Your task to perform on an android device: open the mobile data screen to see how much data has been used Image 0: 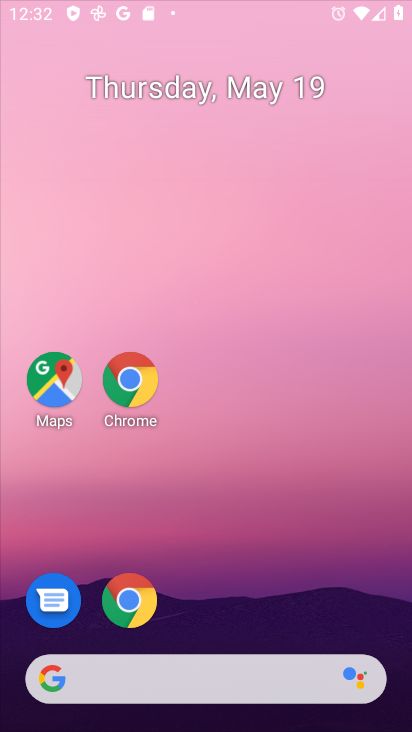
Step 0: drag from (349, 603) to (190, 174)
Your task to perform on an android device: open the mobile data screen to see how much data has been used Image 1: 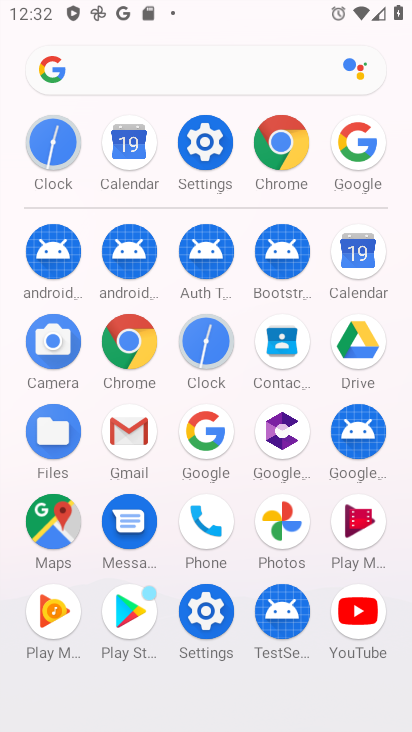
Step 1: click (196, 154)
Your task to perform on an android device: open the mobile data screen to see how much data has been used Image 2: 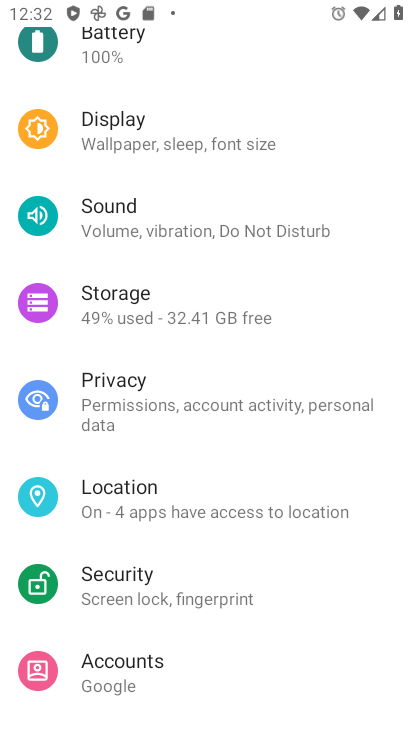
Step 2: drag from (139, 121) to (240, 472)
Your task to perform on an android device: open the mobile data screen to see how much data has been used Image 3: 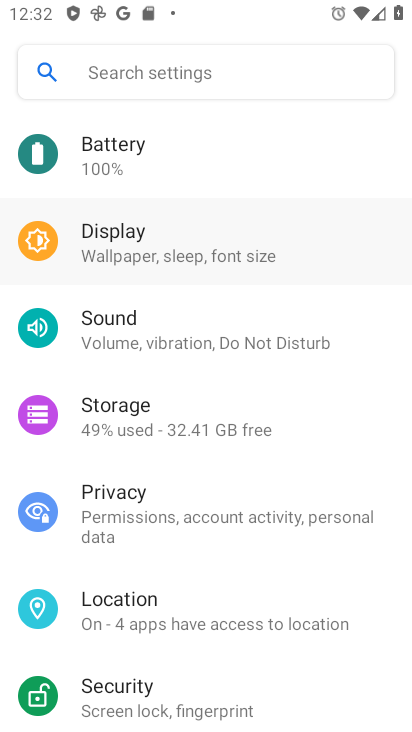
Step 3: drag from (188, 215) to (208, 436)
Your task to perform on an android device: open the mobile data screen to see how much data has been used Image 4: 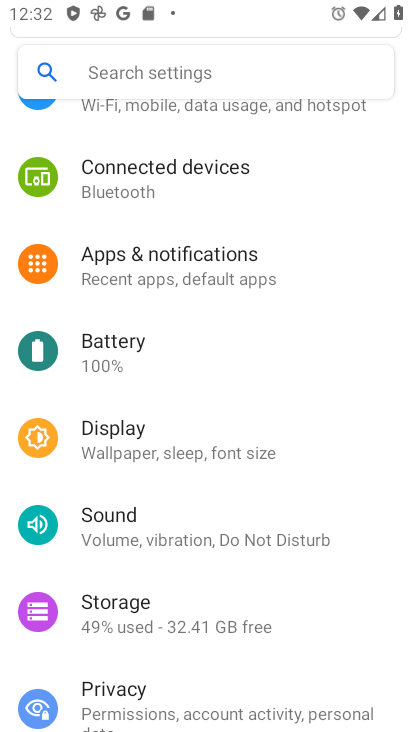
Step 4: drag from (145, 153) to (192, 429)
Your task to perform on an android device: open the mobile data screen to see how much data has been used Image 5: 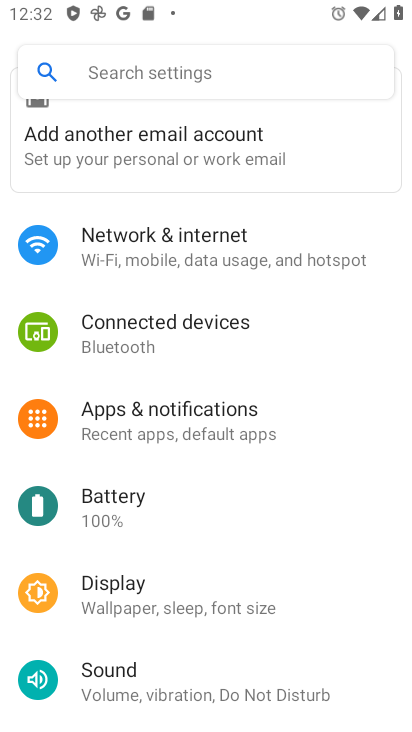
Step 5: click (151, 243)
Your task to perform on an android device: open the mobile data screen to see how much data has been used Image 6: 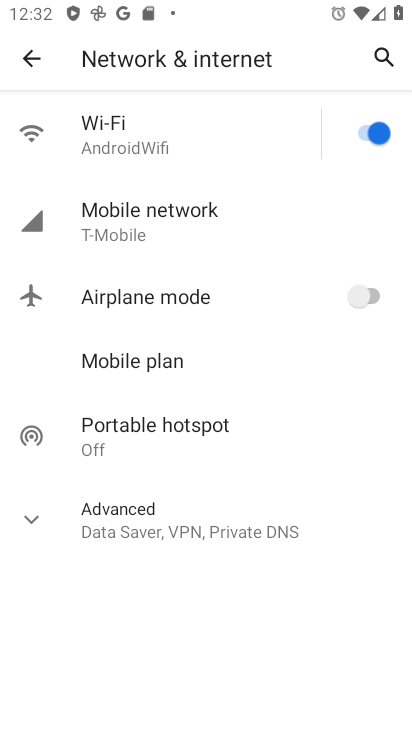
Step 6: click (116, 225)
Your task to perform on an android device: open the mobile data screen to see how much data has been used Image 7: 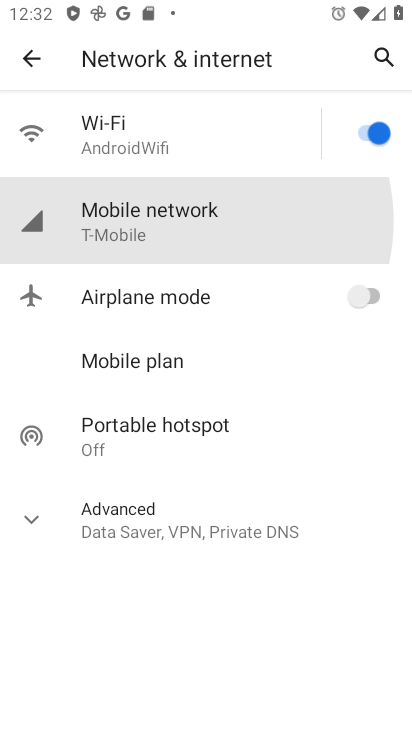
Step 7: click (116, 225)
Your task to perform on an android device: open the mobile data screen to see how much data has been used Image 8: 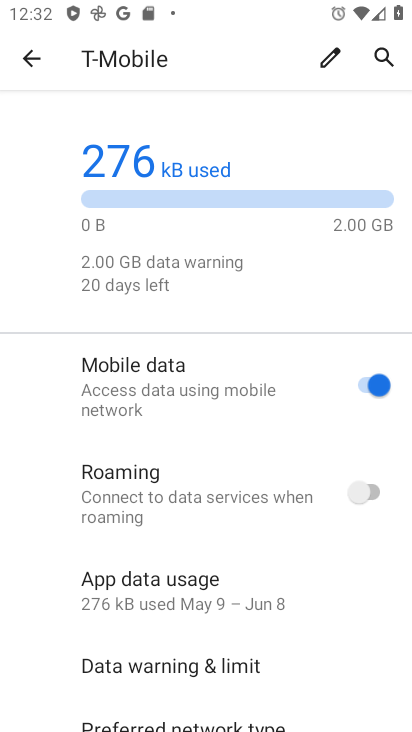
Step 8: click (32, 61)
Your task to perform on an android device: open the mobile data screen to see how much data has been used Image 9: 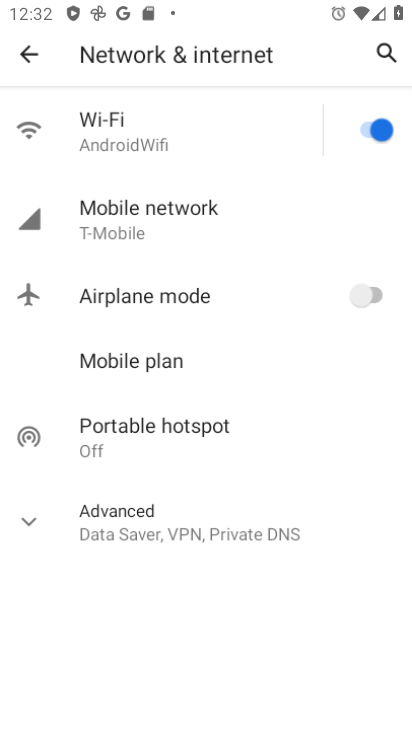
Step 9: click (32, 61)
Your task to perform on an android device: open the mobile data screen to see how much data has been used Image 10: 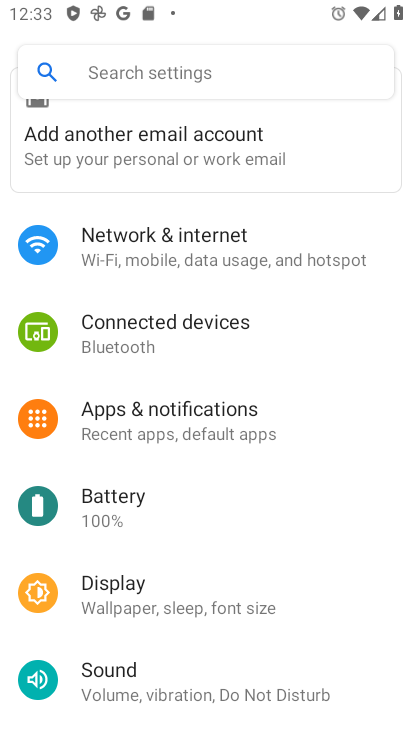
Step 10: drag from (128, 234) to (204, 501)
Your task to perform on an android device: open the mobile data screen to see how much data has been used Image 11: 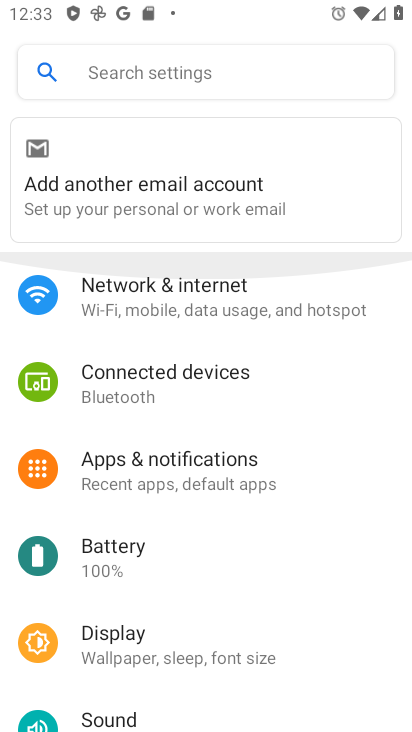
Step 11: drag from (129, 278) to (173, 526)
Your task to perform on an android device: open the mobile data screen to see how much data has been used Image 12: 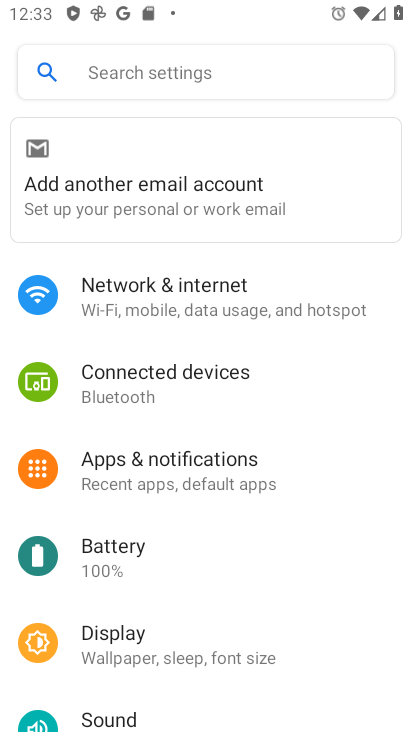
Step 12: click (156, 290)
Your task to perform on an android device: open the mobile data screen to see how much data has been used Image 13: 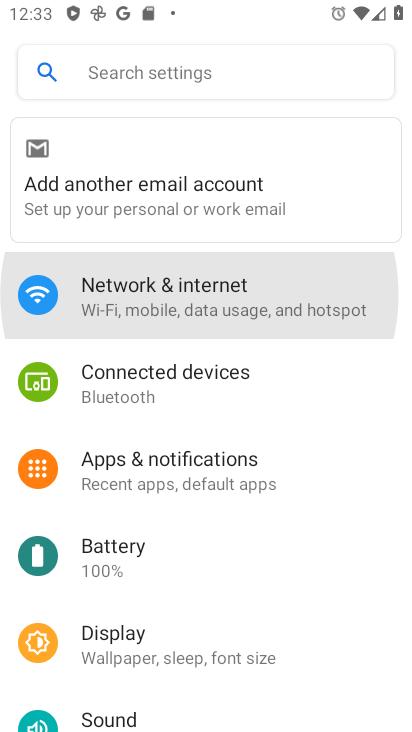
Step 13: click (156, 290)
Your task to perform on an android device: open the mobile data screen to see how much data has been used Image 14: 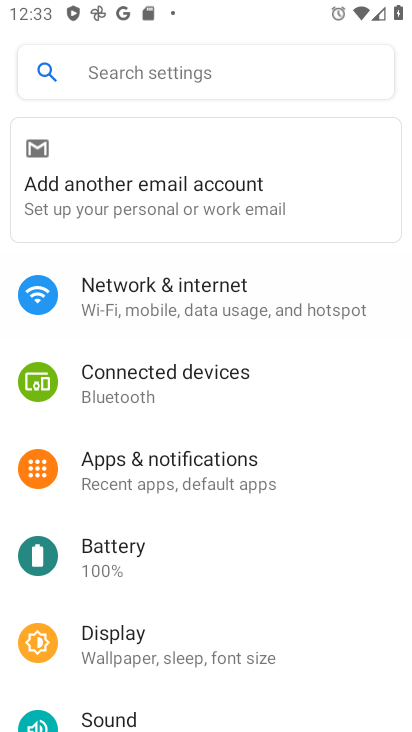
Step 14: click (156, 290)
Your task to perform on an android device: open the mobile data screen to see how much data has been used Image 15: 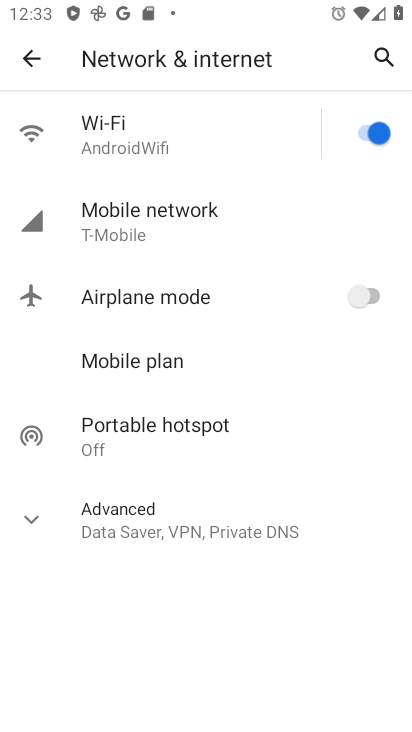
Step 15: click (357, 304)
Your task to perform on an android device: open the mobile data screen to see how much data has been used Image 16: 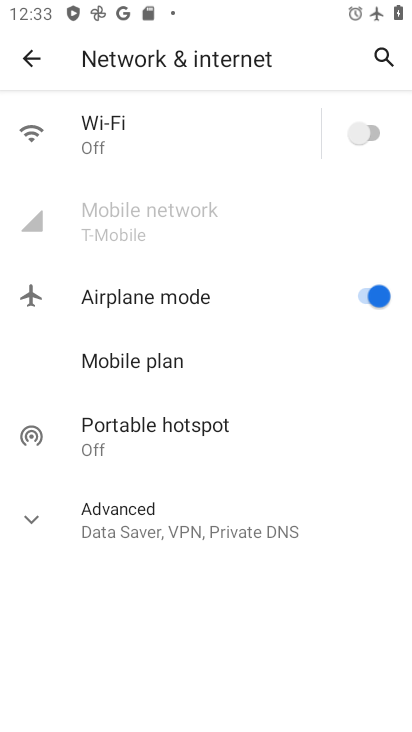
Step 16: click (363, 296)
Your task to perform on an android device: open the mobile data screen to see how much data has been used Image 17: 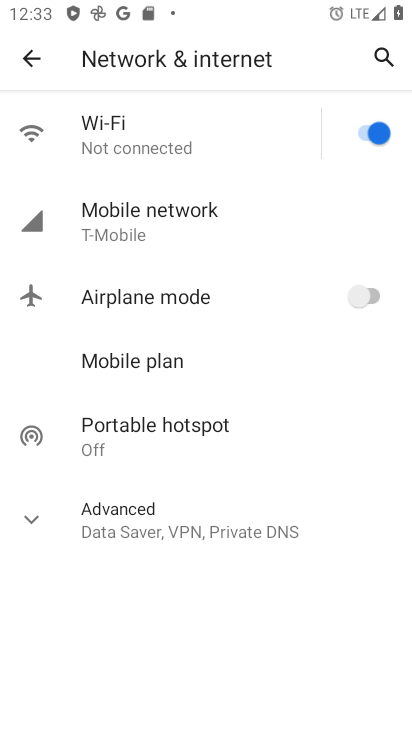
Step 17: task complete